Your task to perform on an android device: Open sound settings Image 0: 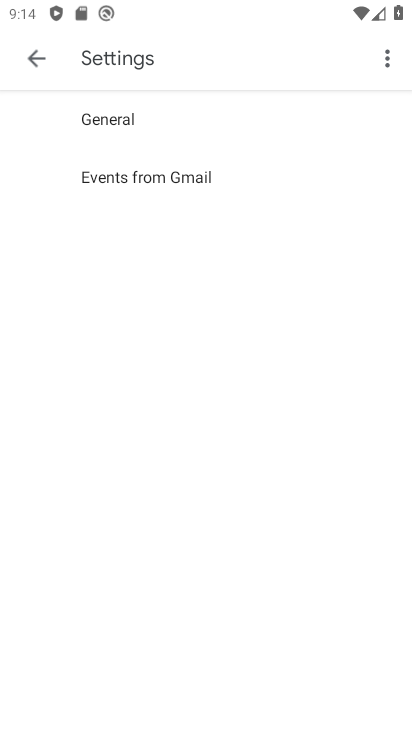
Step 0: press home button
Your task to perform on an android device: Open sound settings Image 1: 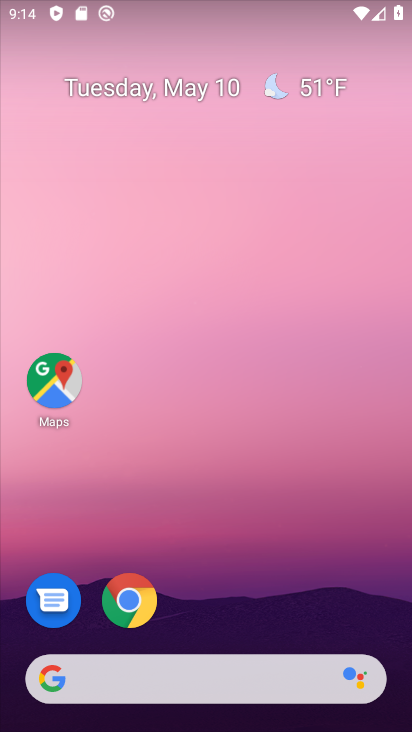
Step 1: drag from (250, 571) to (300, 50)
Your task to perform on an android device: Open sound settings Image 2: 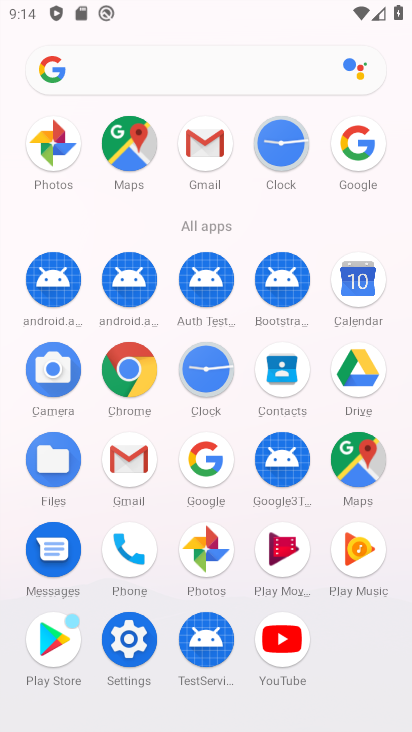
Step 2: click (141, 633)
Your task to perform on an android device: Open sound settings Image 3: 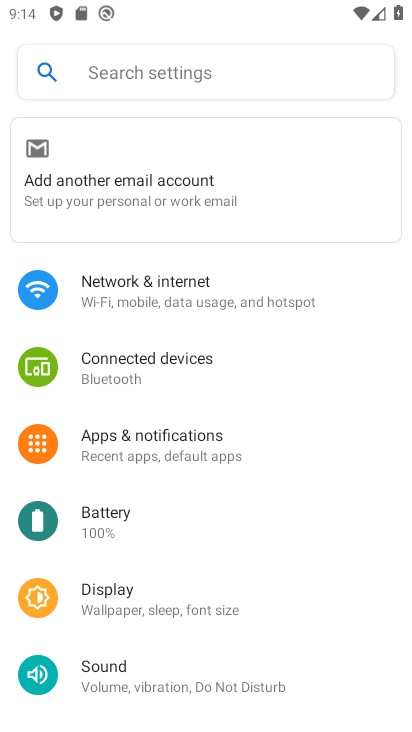
Step 3: click (150, 682)
Your task to perform on an android device: Open sound settings Image 4: 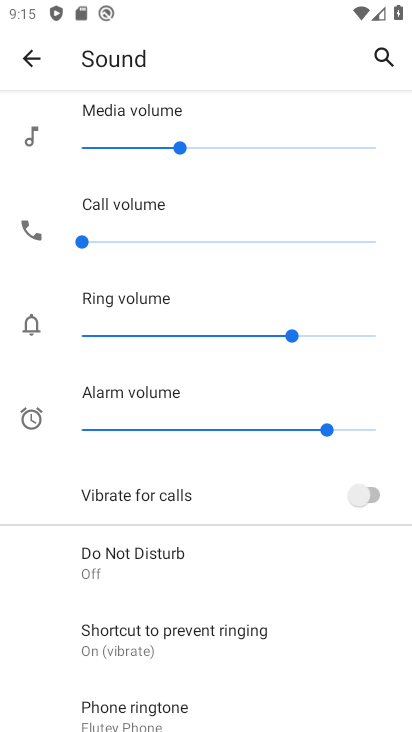
Step 4: task complete